Your task to perform on an android device: turn off translation in the chrome app Image 0: 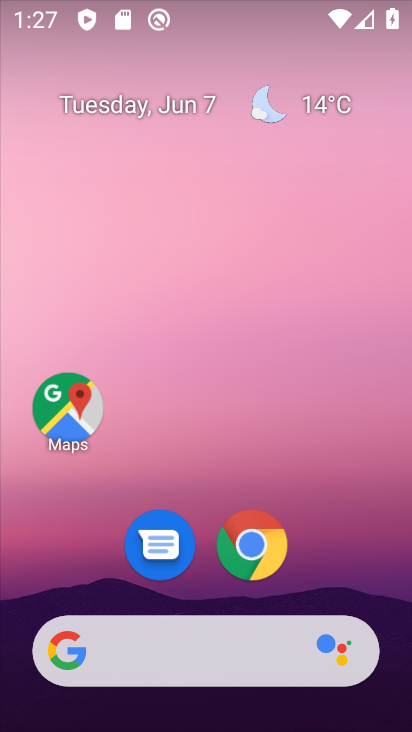
Step 0: click (264, 542)
Your task to perform on an android device: turn off translation in the chrome app Image 1: 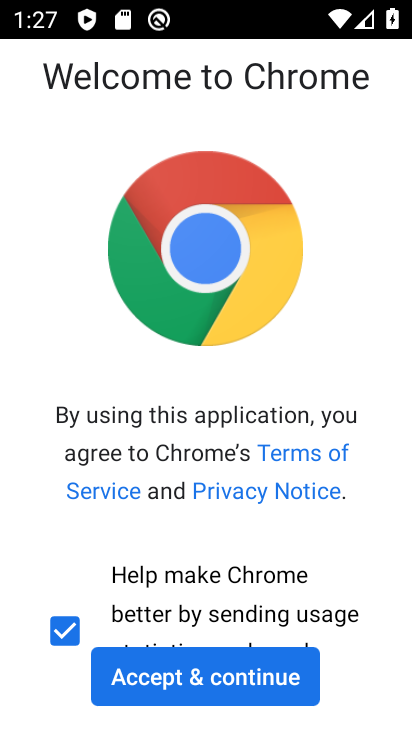
Step 1: click (251, 670)
Your task to perform on an android device: turn off translation in the chrome app Image 2: 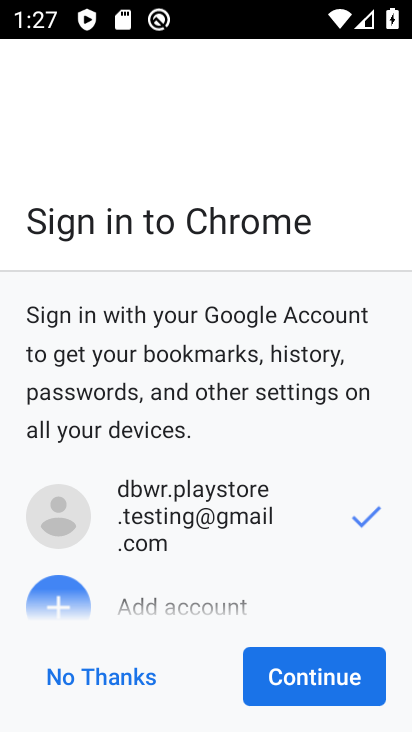
Step 2: click (360, 682)
Your task to perform on an android device: turn off translation in the chrome app Image 3: 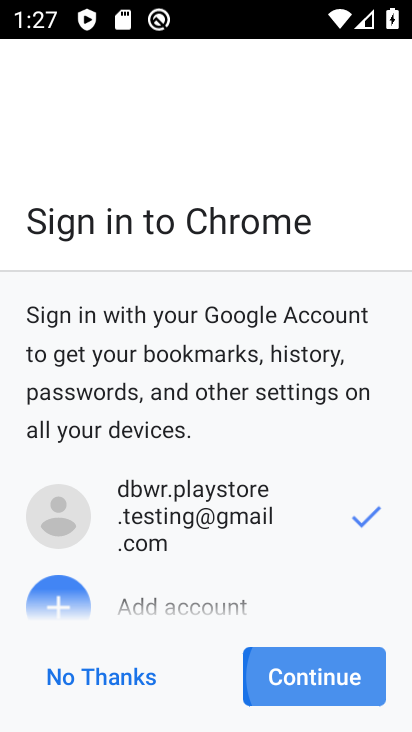
Step 3: click (360, 682)
Your task to perform on an android device: turn off translation in the chrome app Image 4: 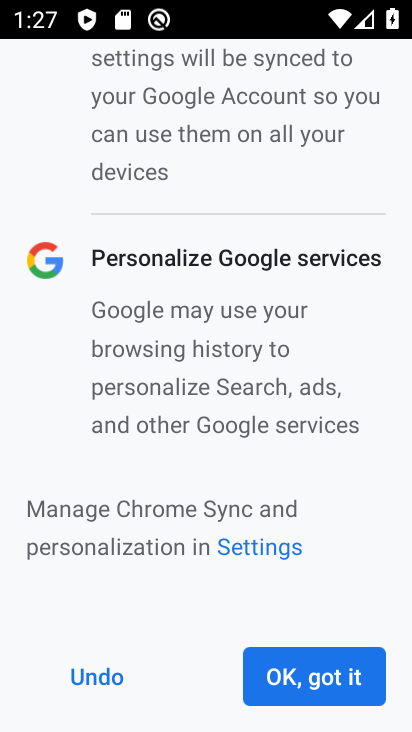
Step 4: click (374, 661)
Your task to perform on an android device: turn off translation in the chrome app Image 5: 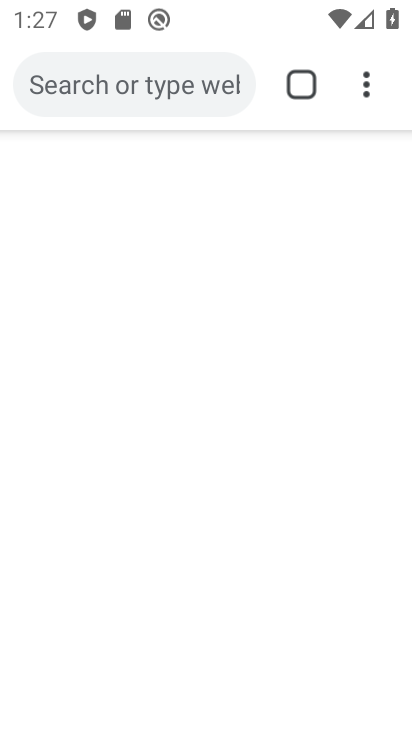
Step 5: click (370, 81)
Your task to perform on an android device: turn off translation in the chrome app Image 6: 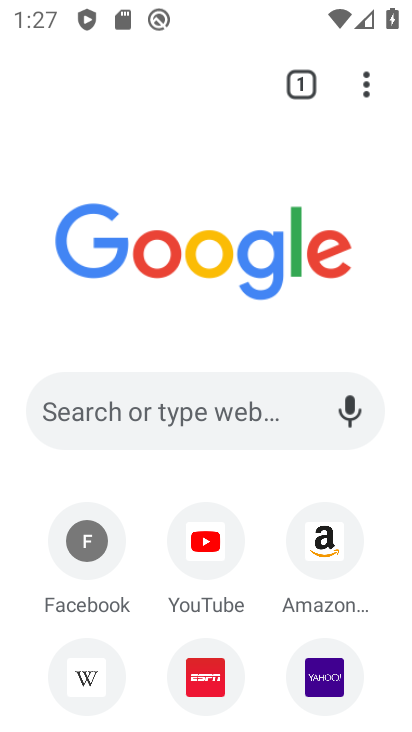
Step 6: click (368, 88)
Your task to perform on an android device: turn off translation in the chrome app Image 7: 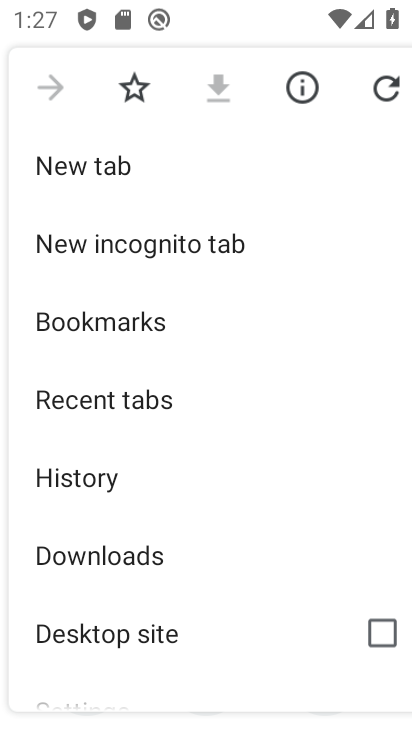
Step 7: drag from (214, 421) to (189, 41)
Your task to perform on an android device: turn off translation in the chrome app Image 8: 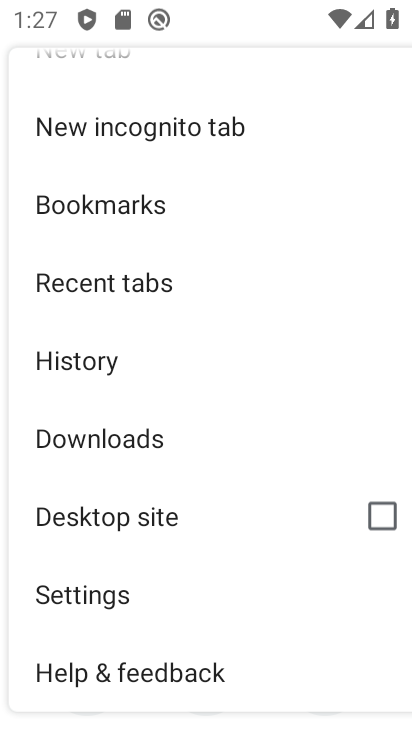
Step 8: click (151, 579)
Your task to perform on an android device: turn off translation in the chrome app Image 9: 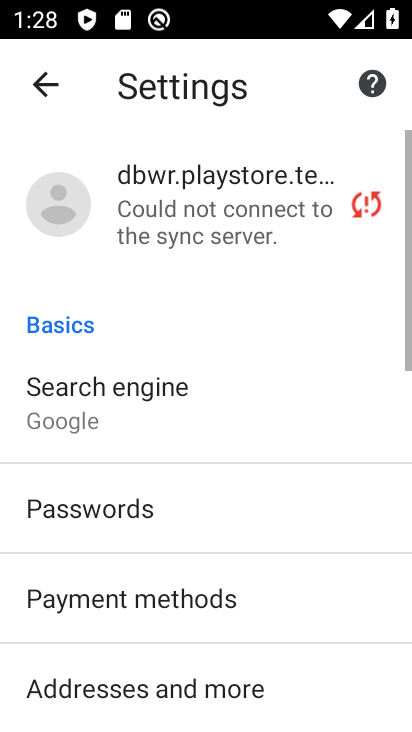
Step 9: drag from (217, 555) to (188, 27)
Your task to perform on an android device: turn off translation in the chrome app Image 10: 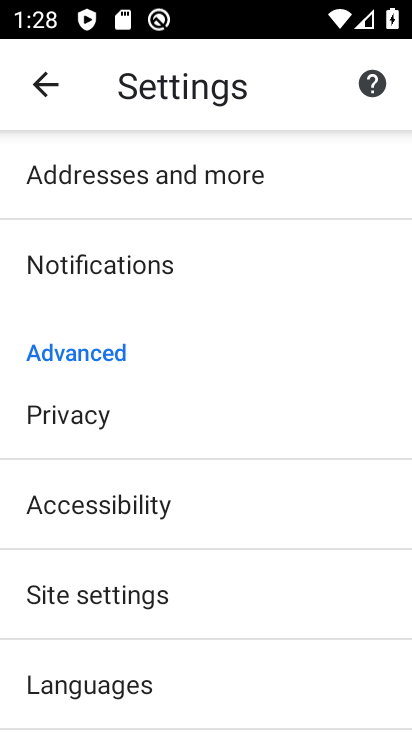
Step 10: click (216, 667)
Your task to perform on an android device: turn off translation in the chrome app Image 11: 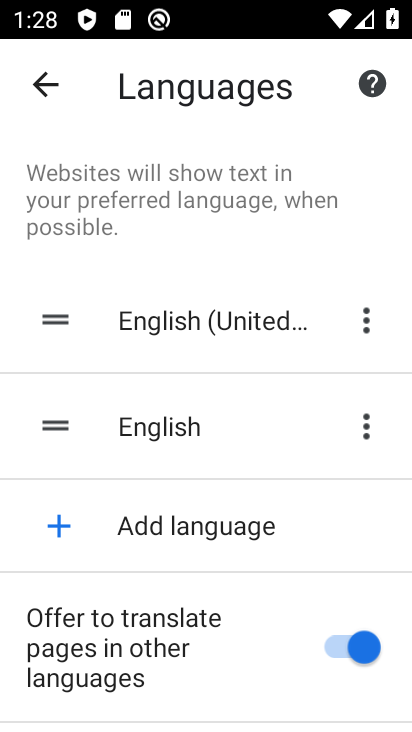
Step 11: click (372, 644)
Your task to perform on an android device: turn off translation in the chrome app Image 12: 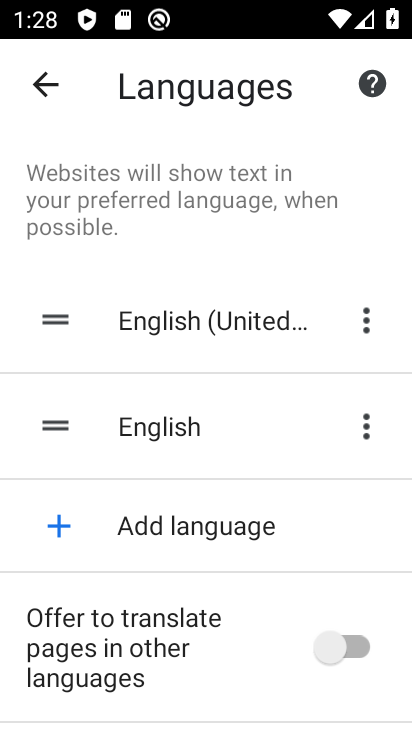
Step 12: task complete